Your task to perform on an android device: open app "Adobe Express: Graphic Design" Image 0: 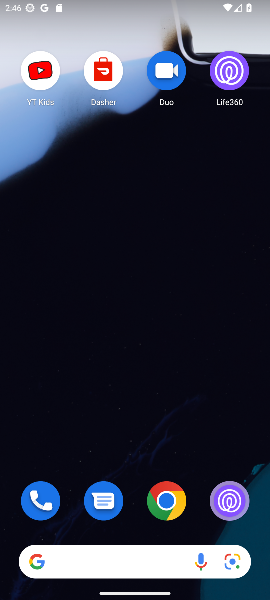
Step 0: drag from (125, 465) to (136, 5)
Your task to perform on an android device: open app "Adobe Express: Graphic Design" Image 1: 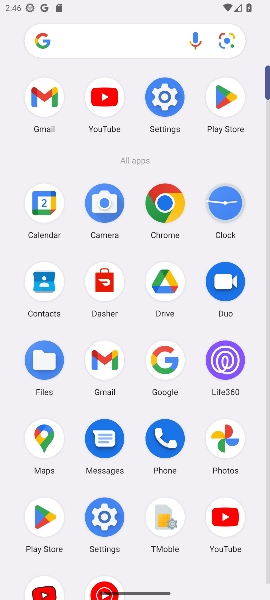
Step 1: click (227, 103)
Your task to perform on an android device: open app "Adobe Express: Graphic Design" Image 2: 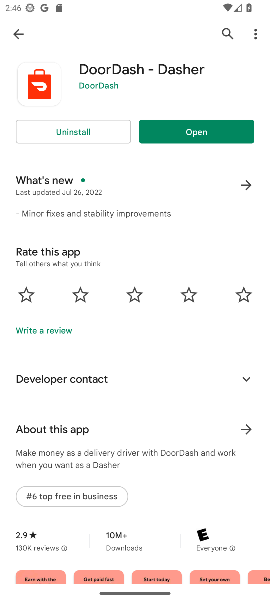
Step 2: click (225, 33)
Your task to perform on an android device: open app "Adobe Express: Graphic Design" Image 3: 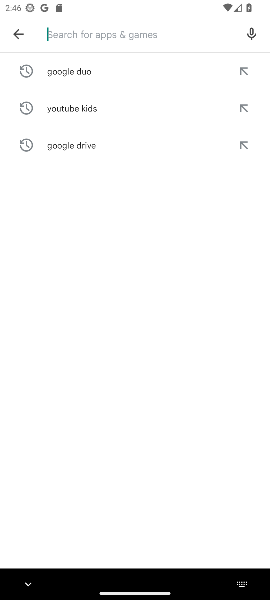
Step 3: type "Adobe Express: Graphic Design"
Your task to perform on an android device: open app "Adobe Express: Graphic Design" Image 4: 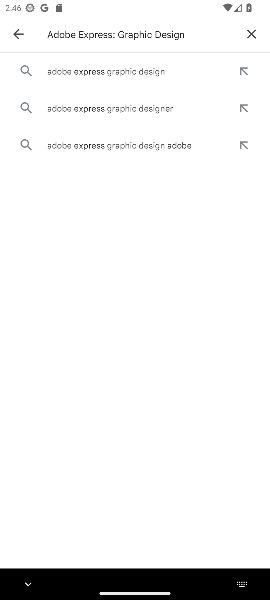
Step 4: click (103, 70)
Your task to perform on an android device: open app "Adobe Express: Graphic Design" Image 5: 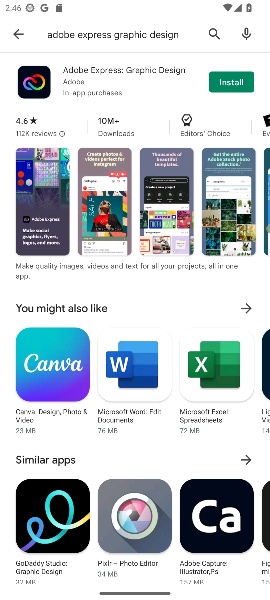
Step 5: task complete